Your task to perform on an android device: create a new album in the google photos Image 0: 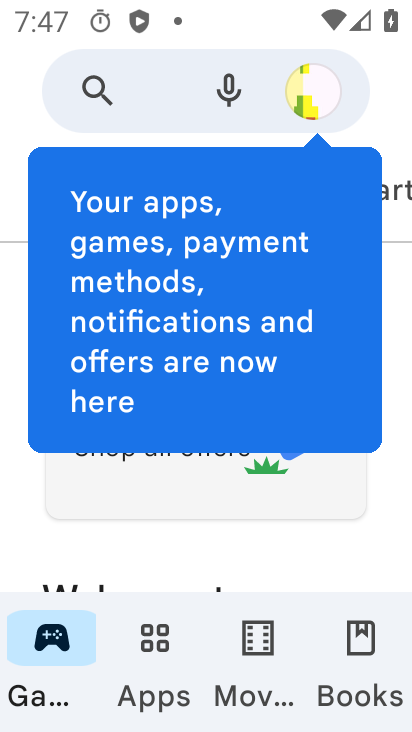
Step 0: press home button
Your task to perform on an android device: create a new album in the google photos Image 1: 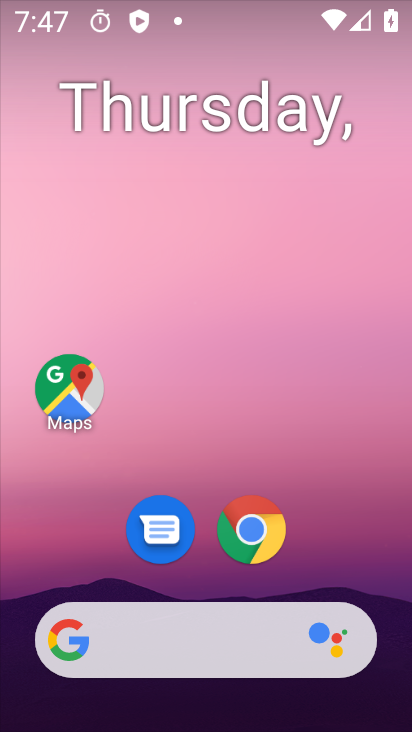
Step 1: drag from (372, 553) to (375, 139)
Your task to perform on an android device: create a new album in the google photos Image 2: 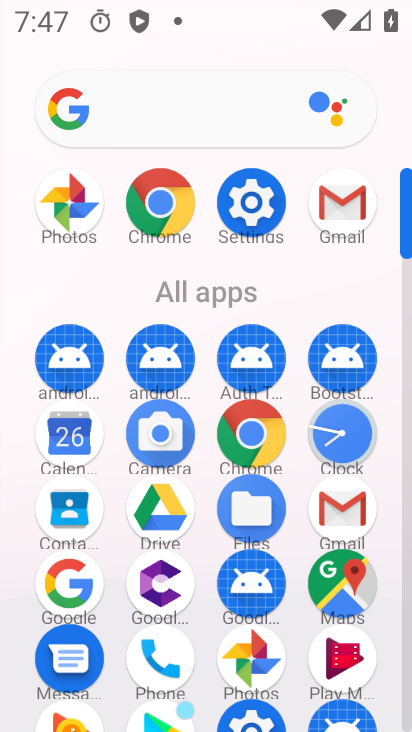
Step 2: click (37, 207)
Your task to perform on an android device: create a new album in the google photos Image 3: 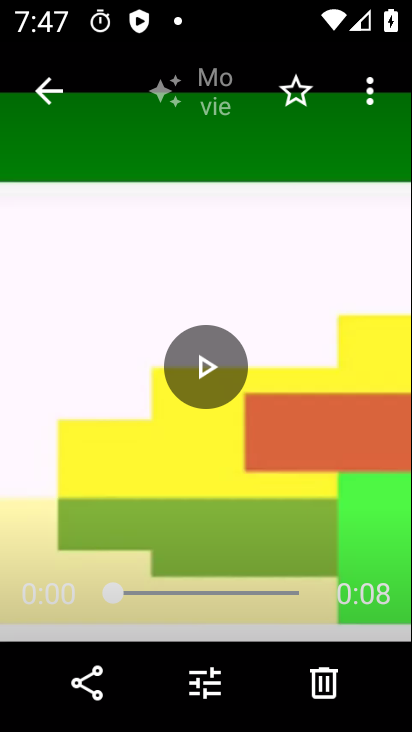
Step 3: click (34, 93)
Your task to perform on an android device: create a new album in the google photos Image 4: 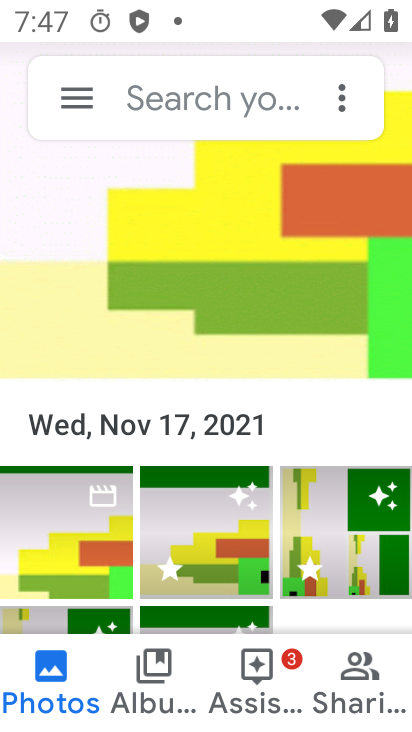
Step 4: click (339, 104)
Your task to perform on an android device: create a new album in the google photos Image 5: 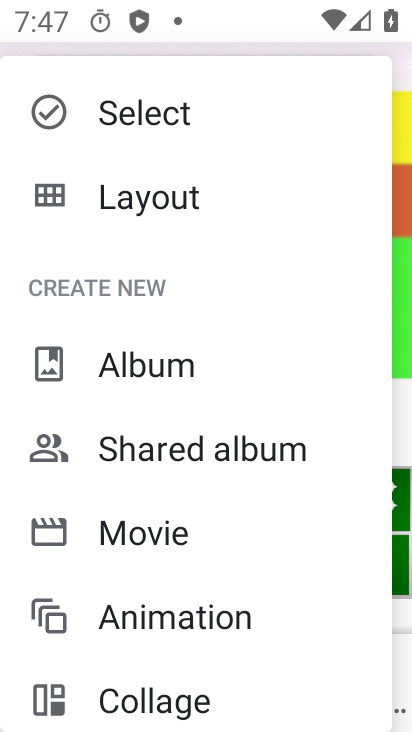
Step 5: click (103, 371)
Your task to perform on an android device: create a new album in the google photos Image 6: 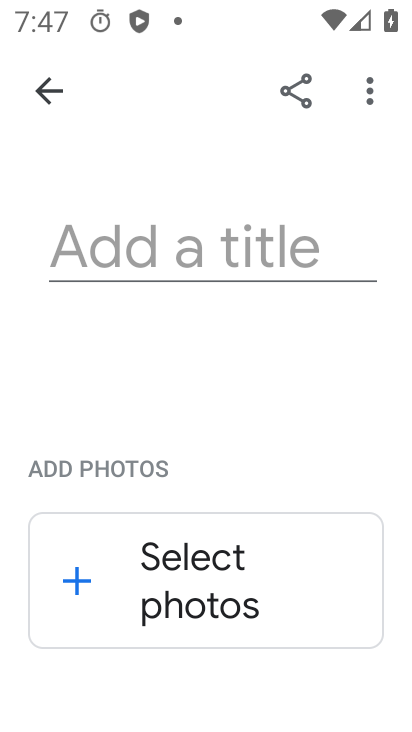
Step 6: click (134, 253)
Your task to perform on an android device: create a new album in the google photos Image 7: 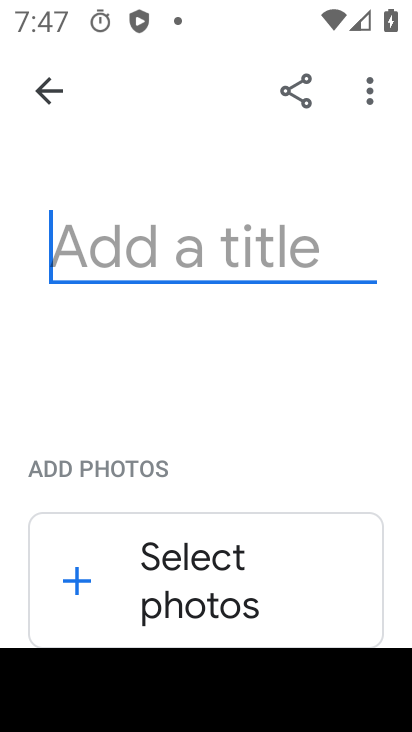
Step 7: type "fgtggg"
Your task to perform on an android device: create a new album in the google photos Image 8: 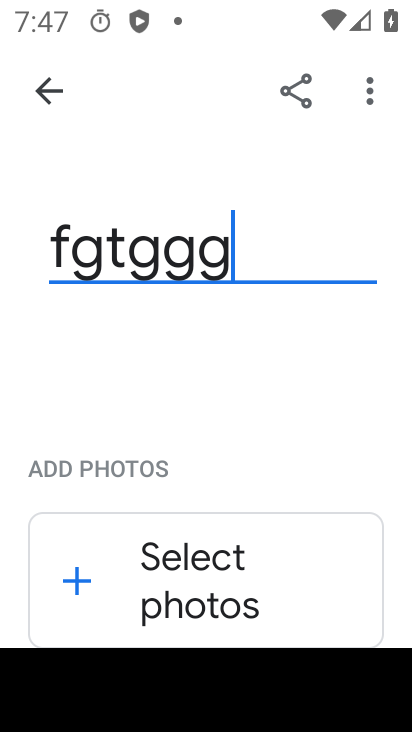
Step 8: click (79, 575)
Your task to perform on an android device: create a new album in the google photos Image 9: 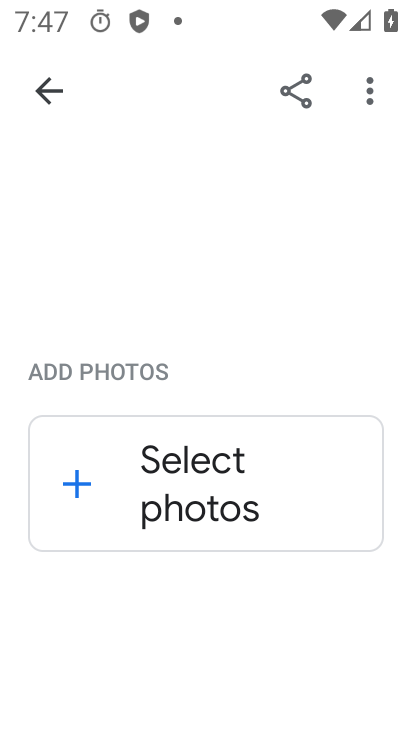
Step 9: click (166, 469)
Your task to perform on an android device: create a new album in the google photos Image 10: 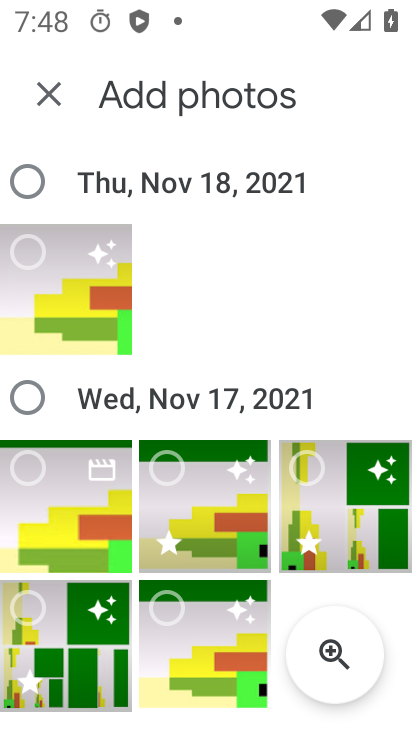
Step 10: click (28, 462)
Your task to perform on an android device: create a new album in the google photos Image 11: 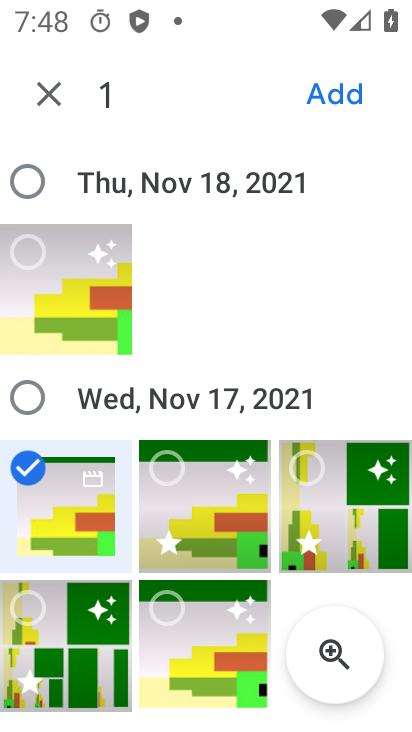
Step 11: click (158, 467)
Your task to perform on an android device: create a new album in the google photos Image 12: 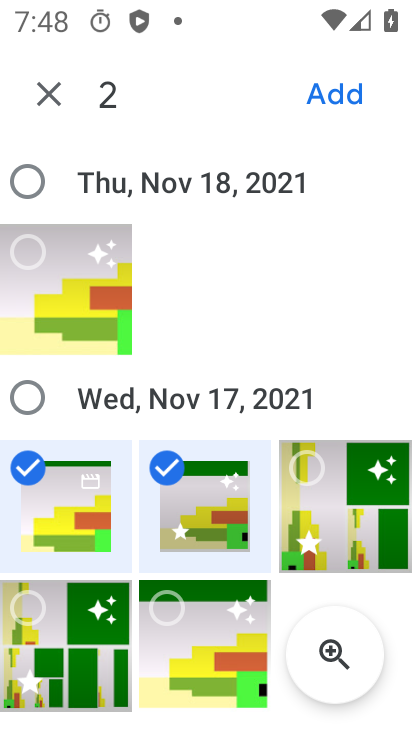
Step 12: click (326, 468)
Your task to perform on an android device: create a new album in the google photos Image 13: 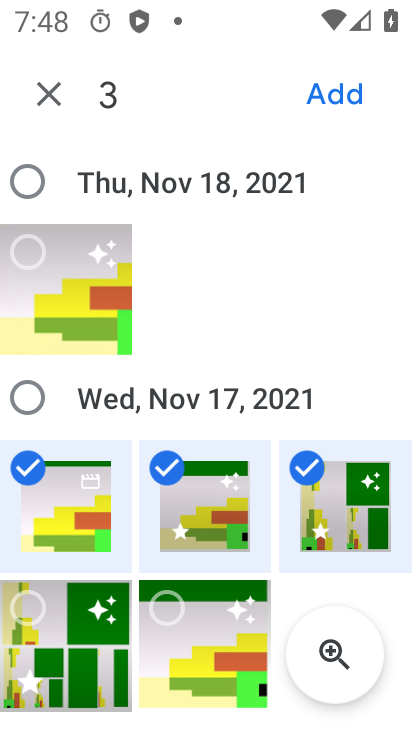
Step 13: click (175, 604)
Your task to perform on an android device: create a new album in the google photos Image 14: 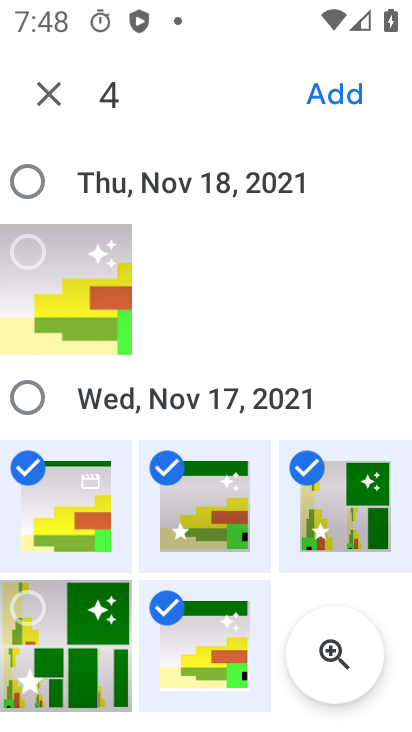
Step 14: click (340, 91)
Your task to perform on an android device: create a new album in the google photos Image 15: 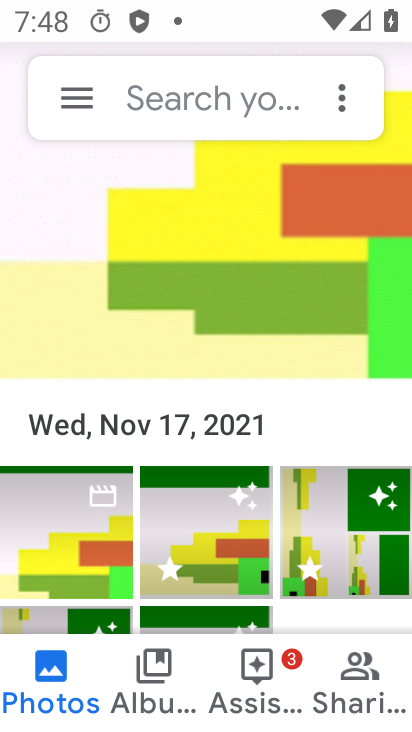
Step 15: task complete